Your task to perform on an android device: check storage Image 0: 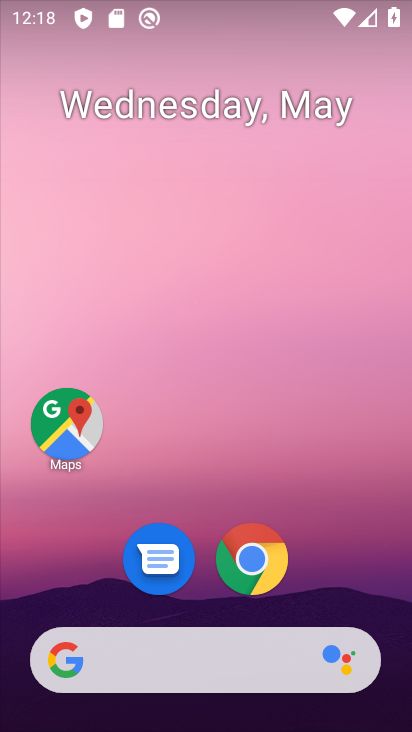
Step 0: drag from (239, 609) to (170, 132)
Your task to perform on an android device: check storage Image 1: 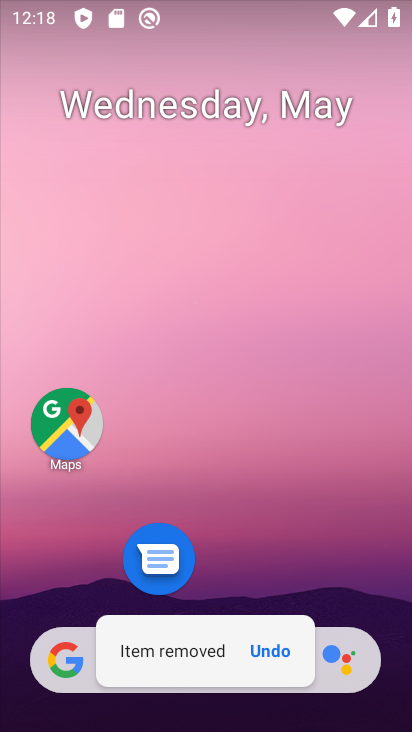
Step 1: drag from (252, 596) to (357, 21)
Your task to perform on an android device: check storage Image 2: 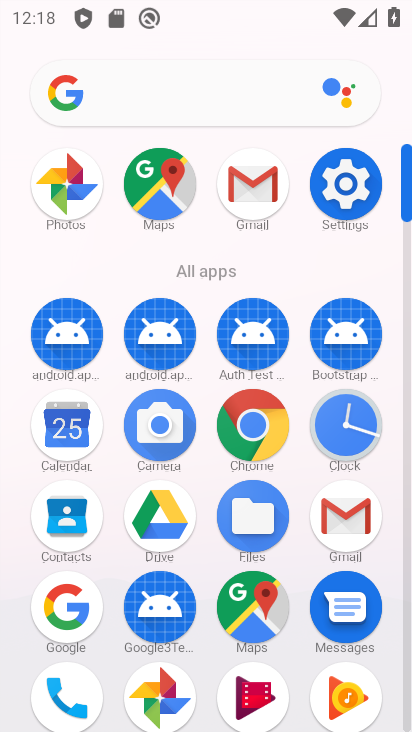
Step 2: click (351, 177)
Your task to perform on an android device: check storage Image 3: 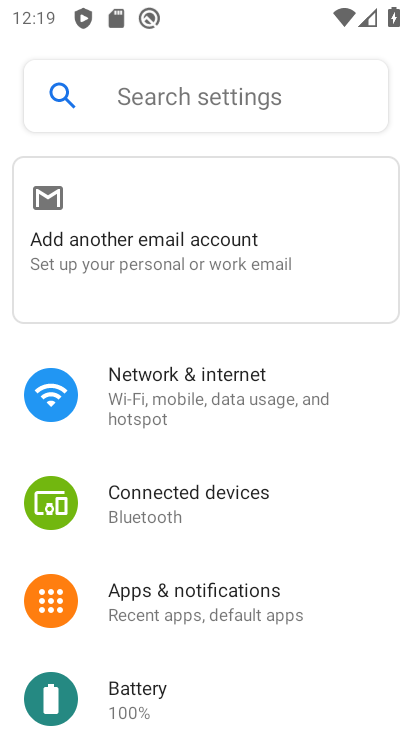
Step 3: drag from (244, 471) to (182, 42)
Your task to perform on an android device: check storage Image 4: 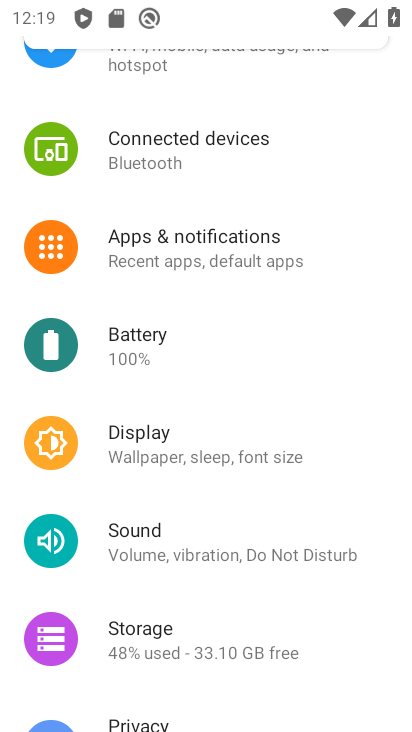
Step 4: click (130, 639)
Your task to perform on an android device: check storage Image 5: 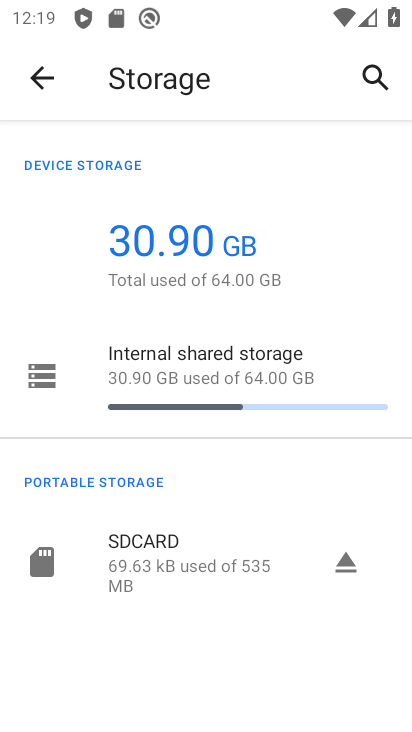
Step 5: task complete